Your task to perform on an android device: all mails in gmail Image 0: 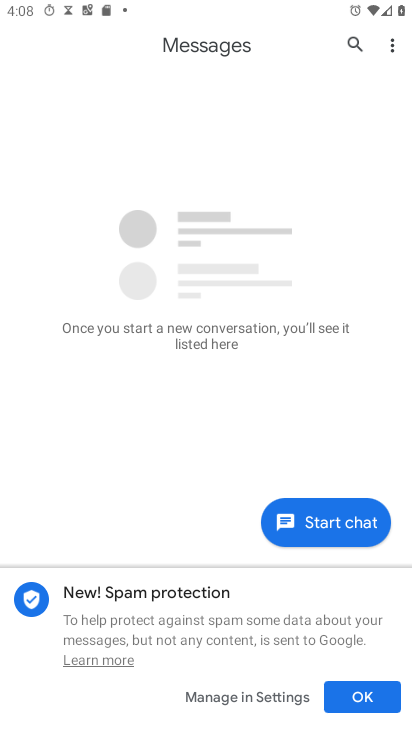
Step 0: press home button
Your task to perform on an android device: all mails in gmail Image 1: 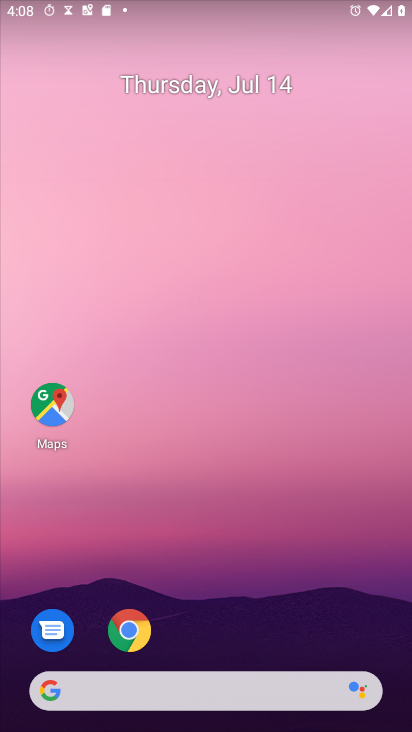
Step 1: drag from (210, 728) to (232, 161)
Your task to perform on an android device: all mails in gmail Image 2: 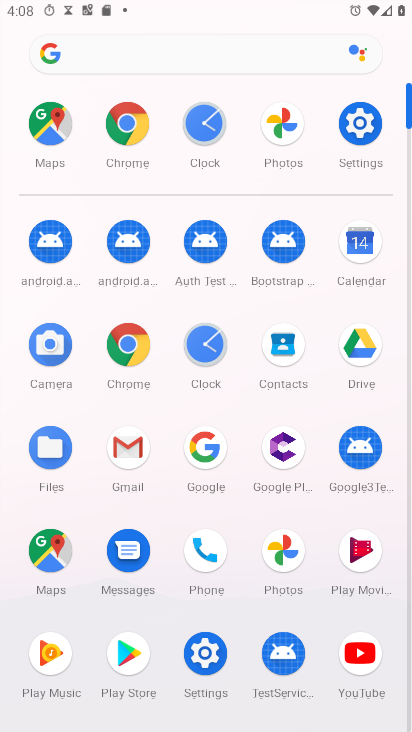
Step 2: click (124, 453)
Your task to perform on an android device: all mails in gmail Image 3: 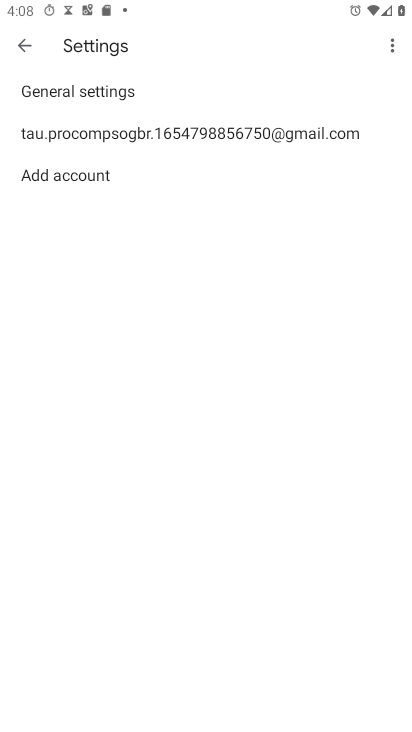
Step 3: click (21, 43)
Your task to perform on an android device: all mails in gmail Image 4: 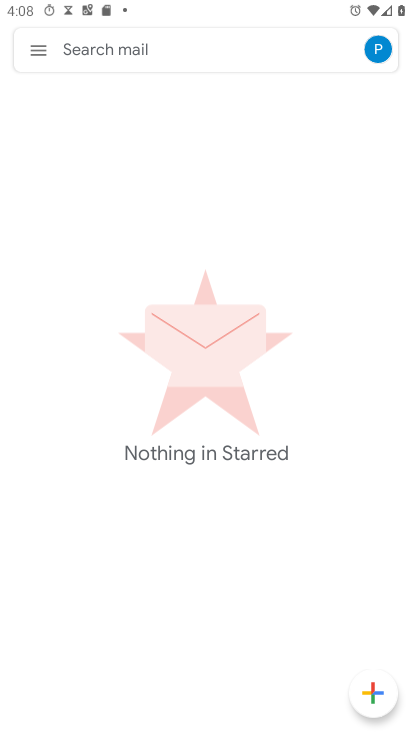
Step 4: click (40, 54)
Your task to perform on an android device: all mails in gmail Image 5: 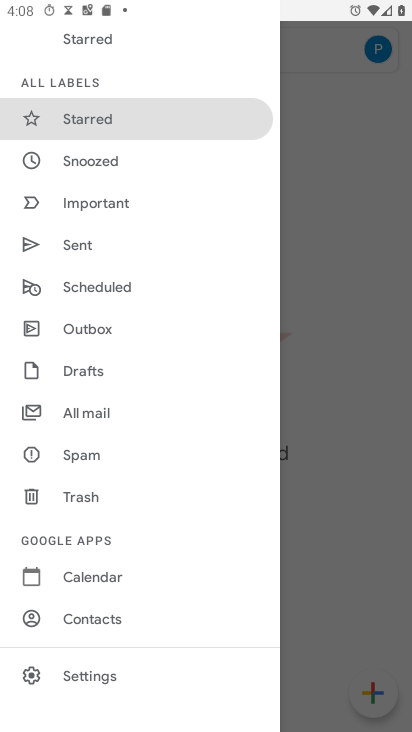
Step 5: click (80, 409)
Your task to perform on an android device: all mails in gmail Image 6: 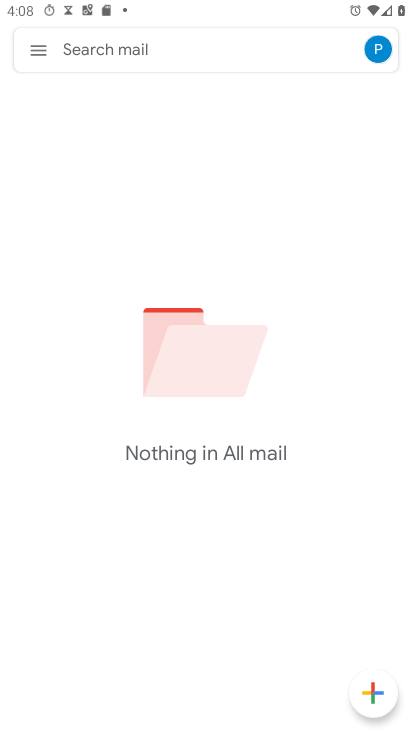
Step 6: task complete